Your task to perform on an android device: Go to location settings Image 0: 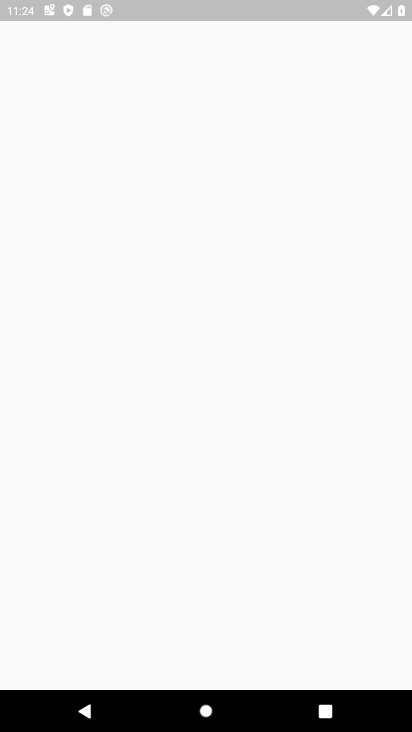
Step 0: press back button
Your task to perform on an android device: Go to location settings Image 1: 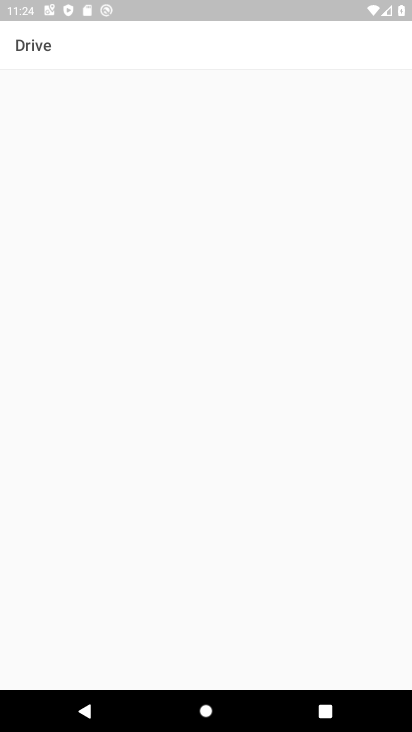
Step 1: press home button
Your task to perform on an android device: Go to location settings Image 2: 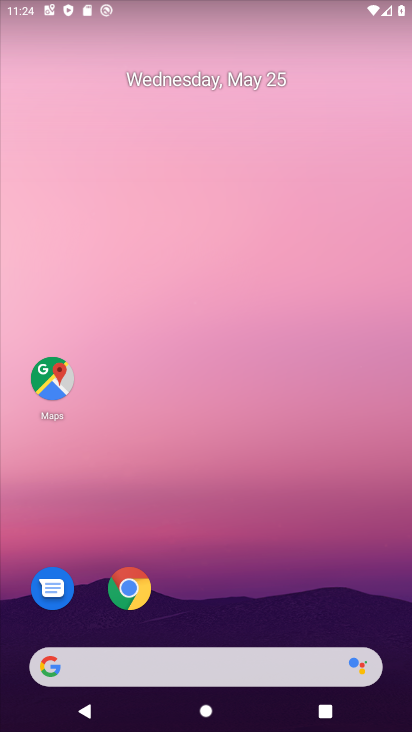
Step 2: drag from (232, 566) to (163, 1)
Your task to perform on an android device: Go to location settings Image 3: 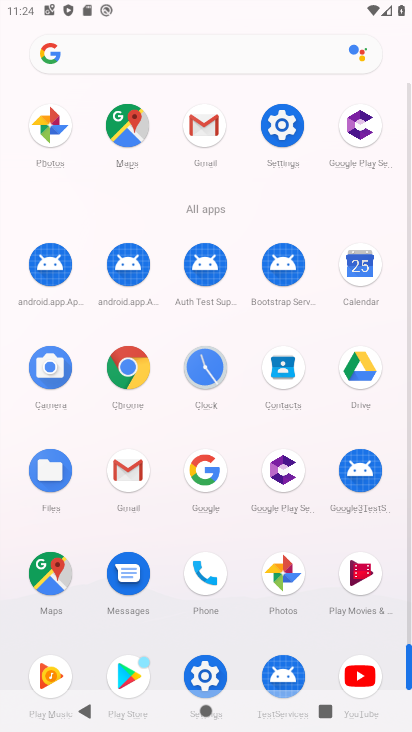
Step 3: click (202, 672)
Your task to perform on an android device: Go to location settings Image 4: 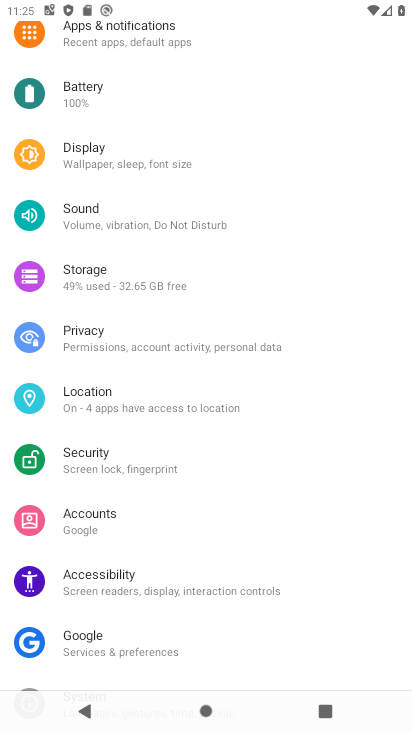
Step 4: click (86, 390)
Your task to perform on an android device: Go to location settings Image 5: 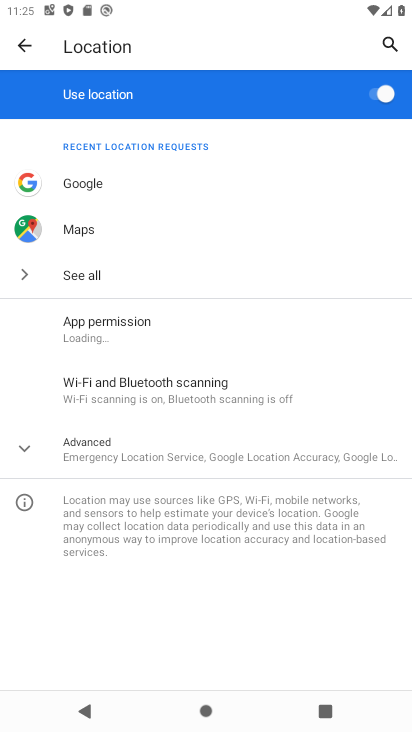
Step 5: click (57, 446)
Your task to perform on an android device: Go to location settings Image 6: 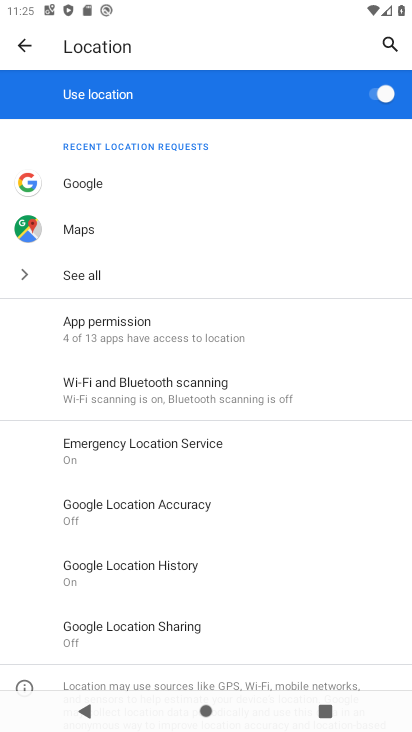
Step 6: task complete